Your task to perform on an android device: change text size in settings app Image 0: 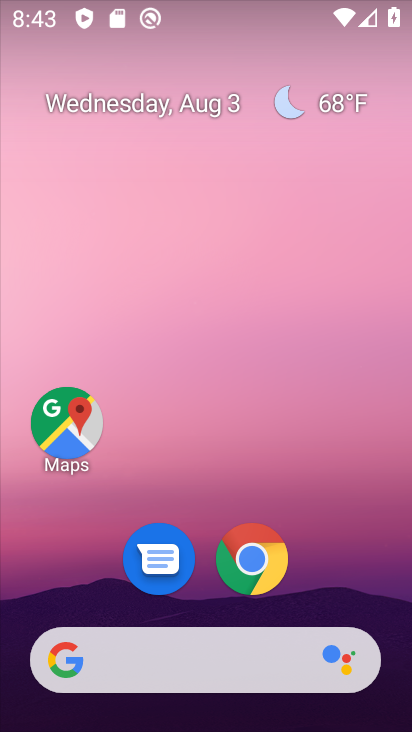
Step 0: drag from (351, 585) to (266, 81)
Your task to perform on an android device: change text size in settings app Image 1: 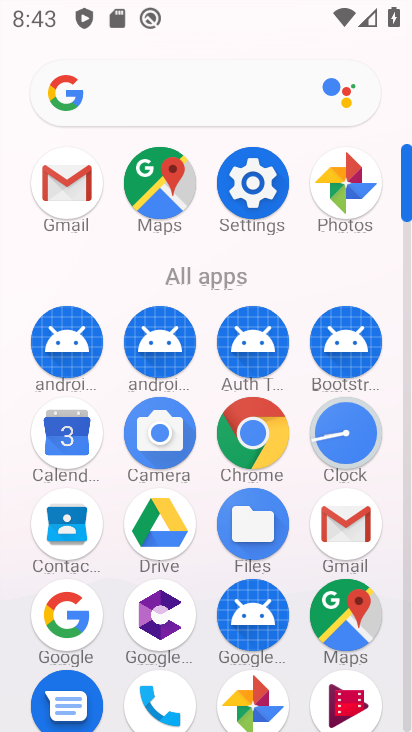
Step 1: click (267, 159)
Your task to perform on an android device: change text size in settings app Image 2: 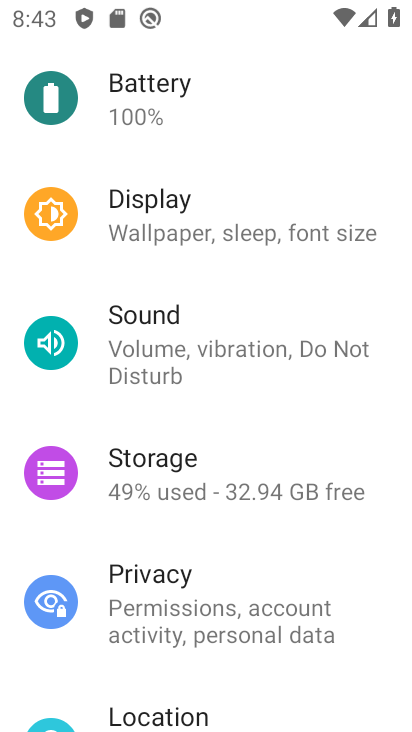
Step 2: click (318, 222)
Your task to perform on an android device: change text size in settings app Image 3: 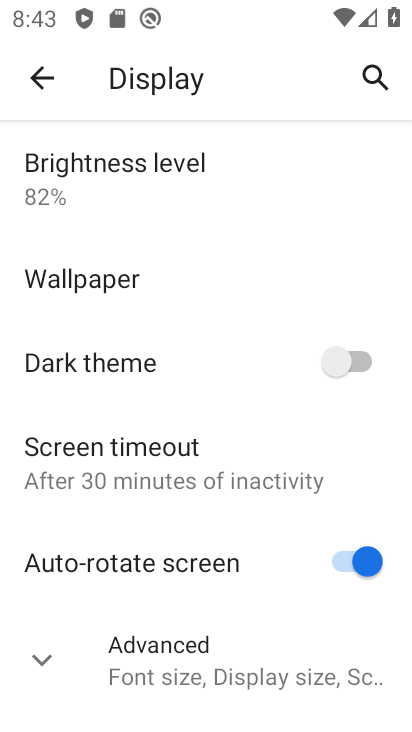
Step 3: click (246, 661)
Your task to perform on an android device: change text size in settings app Image 4: 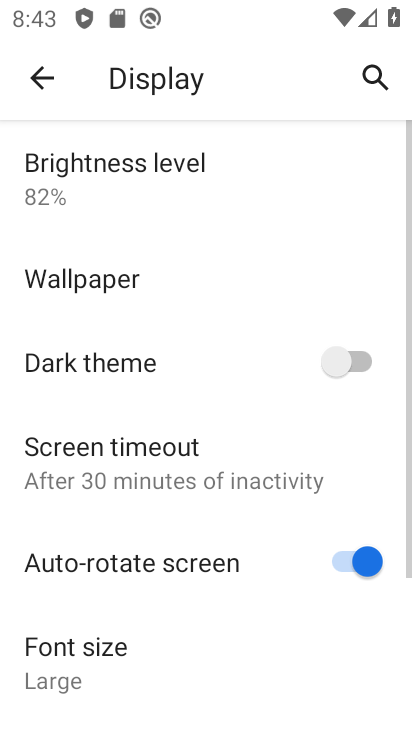
Step 4: click (246, 661)
Your task to perform on an android device: change text size in settings app Image 5: 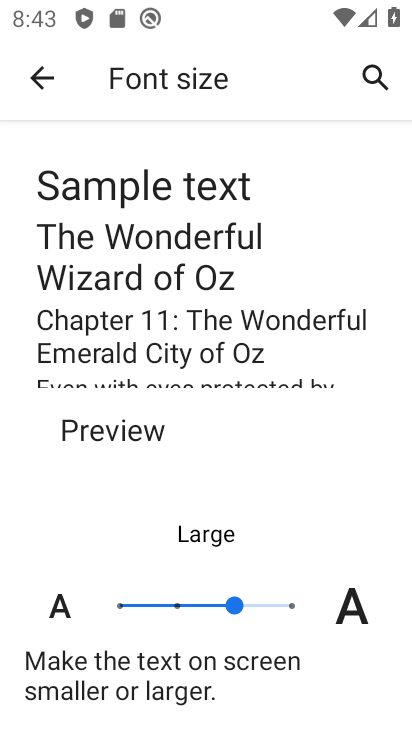
Step 5: click (288, 608)
Your task to perform on an android device: change text size in settings app Image 6: 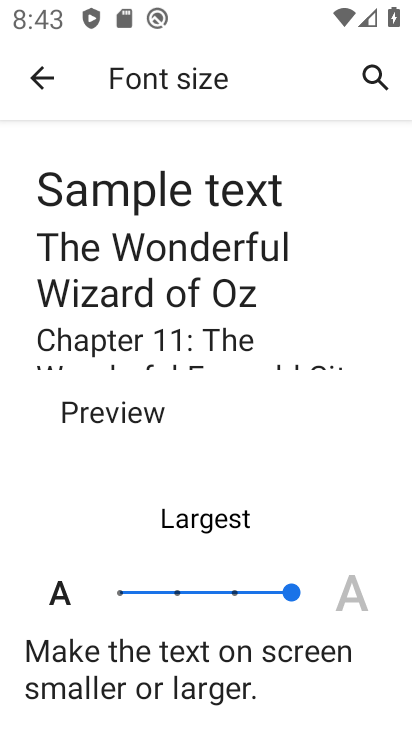
Step 6: task complete